Your task to perform on an android device: Search for Italian restaurants on Maps Image 0: 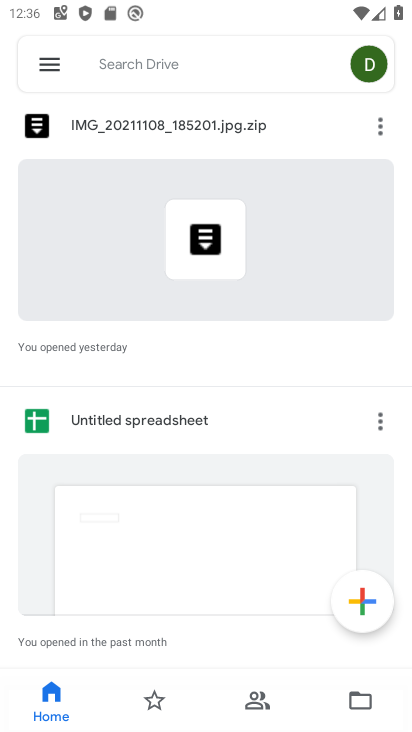
Step 0: press home button
Your task to perform on an android device: Search for Italian restaurants on Maps Image 1: 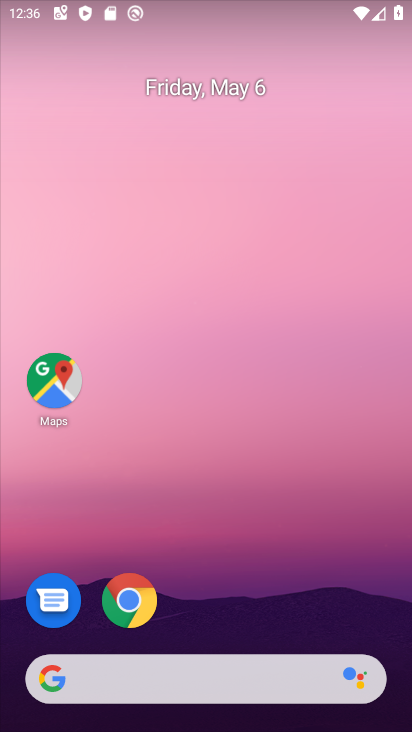
Step 1: drag from (307, 631) to (252, 17)
Your task to perform on an android device: Search for Italian restaurants on Maps Image 2: 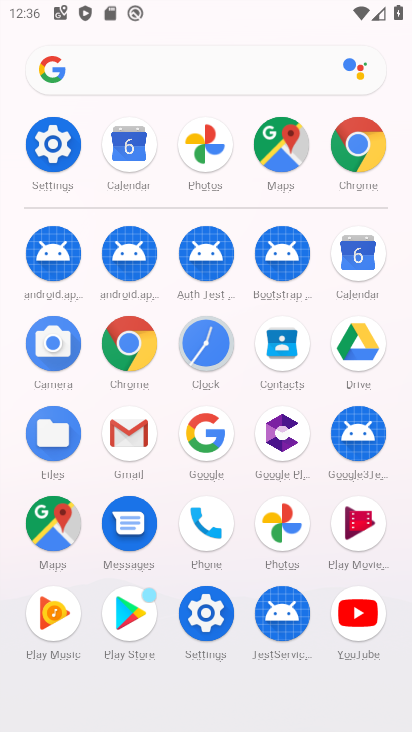
Step 2: click (74, 521)
Your task to perform on an android device: Search for Italian restaurants on Maps Image 3: 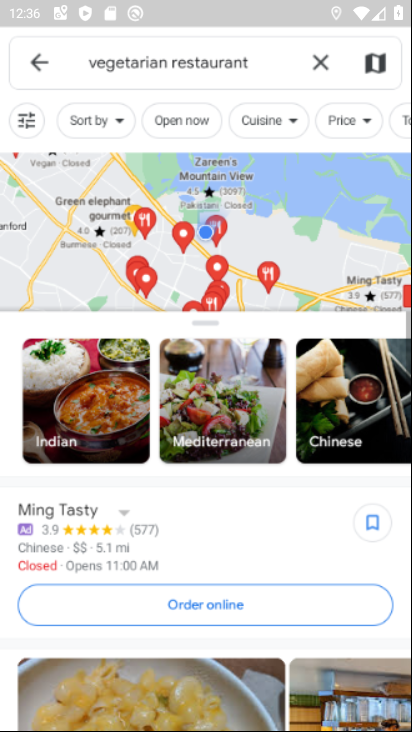
Step 3: click (316, 69)
Your task to perform on an android device: Search for Italian restaurants on Maps Image 4: 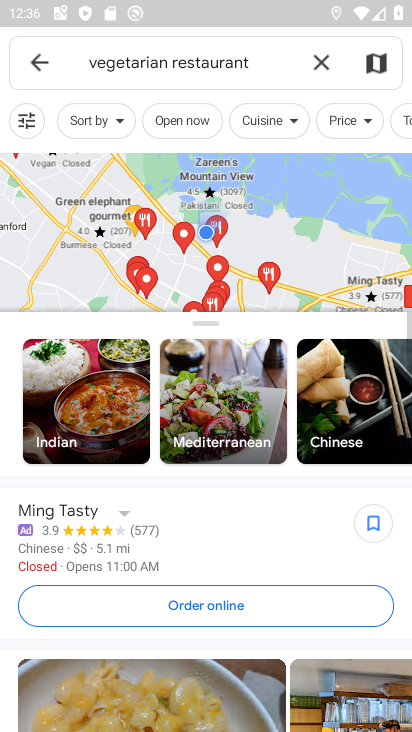
Step 4: click (317, 62)
Your task to perform on an android device: Search for Italian restaurants on Maps Image 5: 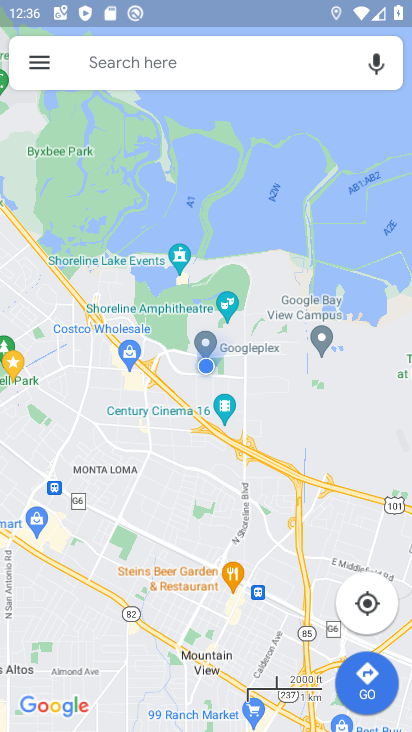
Step 5: click (146, 68)
Your task to perform on an android device: Search for Italian restaurants on Maps Image 6: 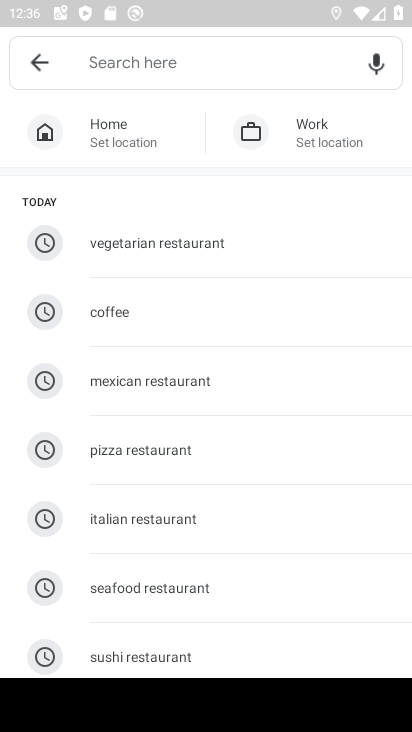
Step 6: click (183, 537)
Your task to perform on an android device: Search for Italian restaurants on Maps Image 7: 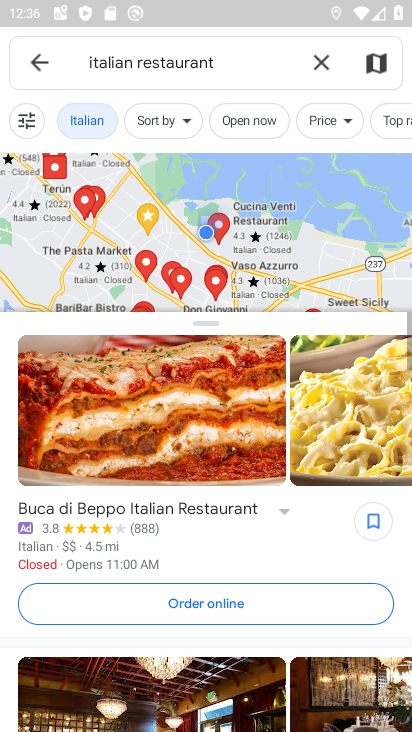
Step 7: task complete